Your task to perform on an android device: change alarm snooze length Image 0: 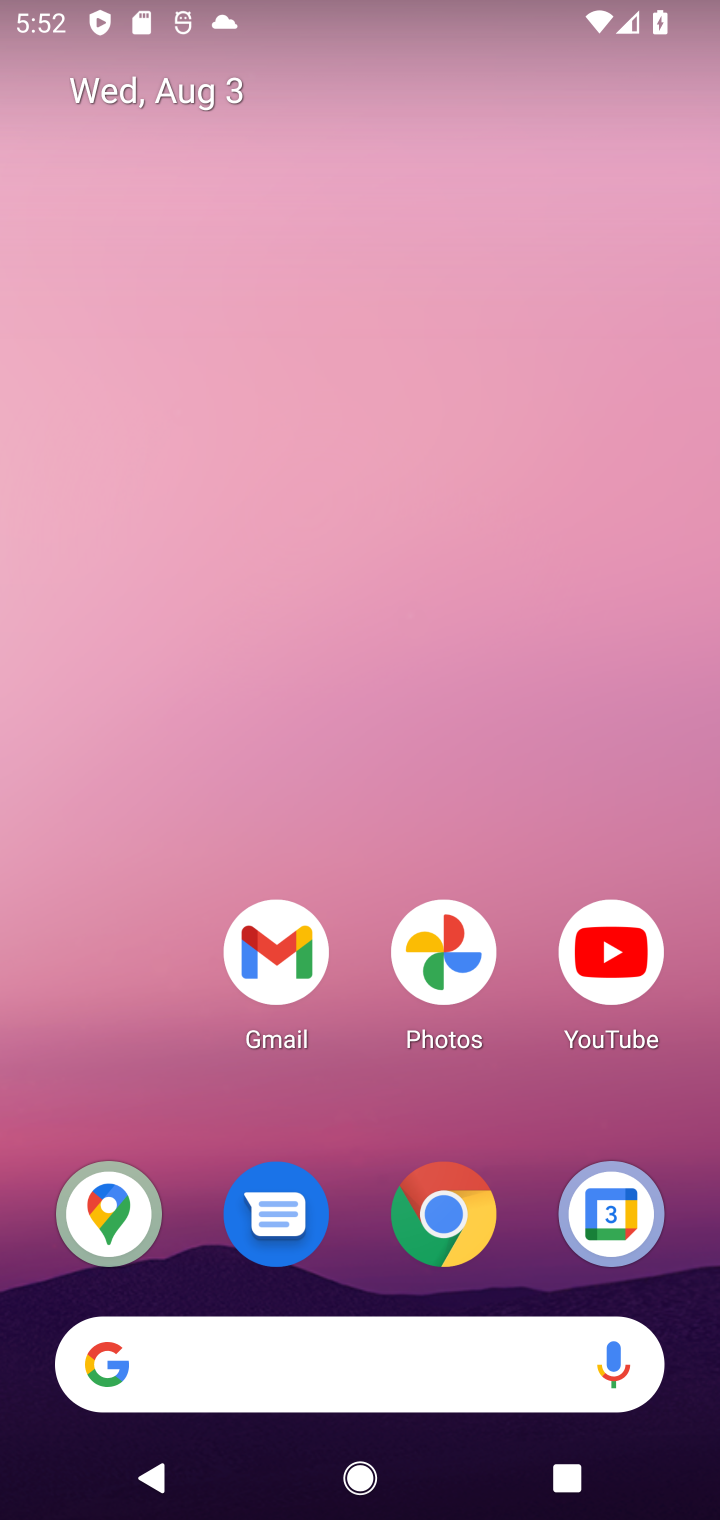
Step 0: drag from (98, 1237) to (41, 192)
Your task to perform on an android device: change alarm snooze length Image 1: 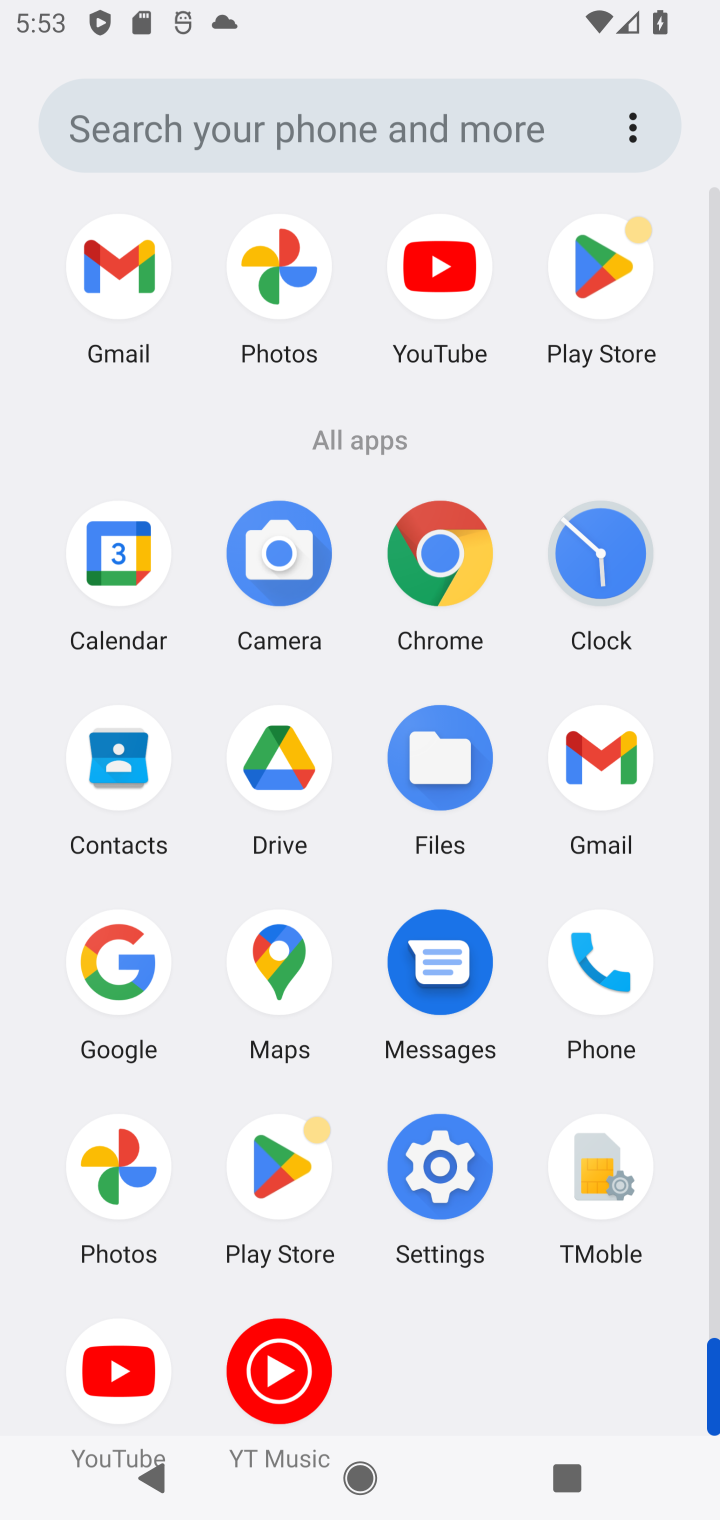
Step 1: click (610, 567)
Your task to perform on an android device: change alarm snooze length Image 2: 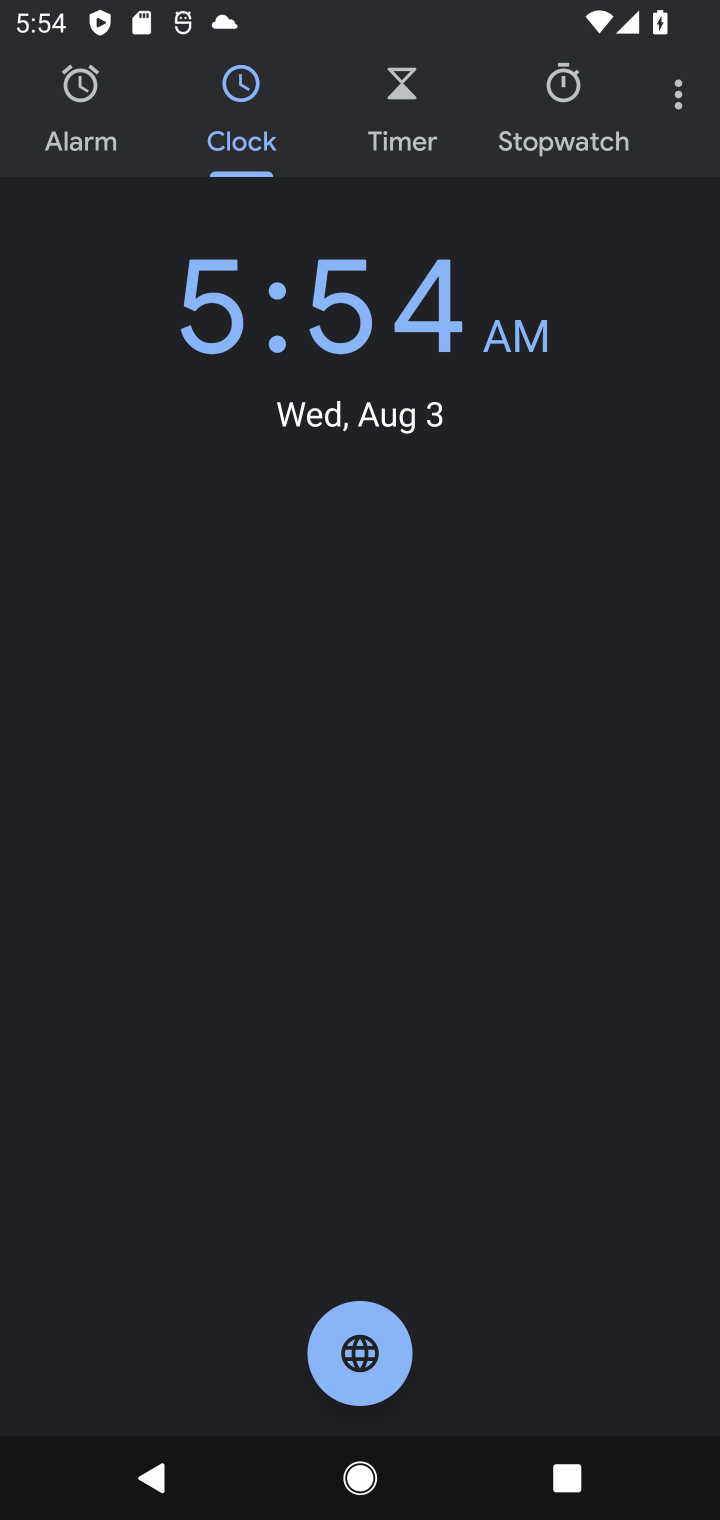
Step 2: click (665, 100)
Your task to perform on an android device: change alarm snooze length Image 3: 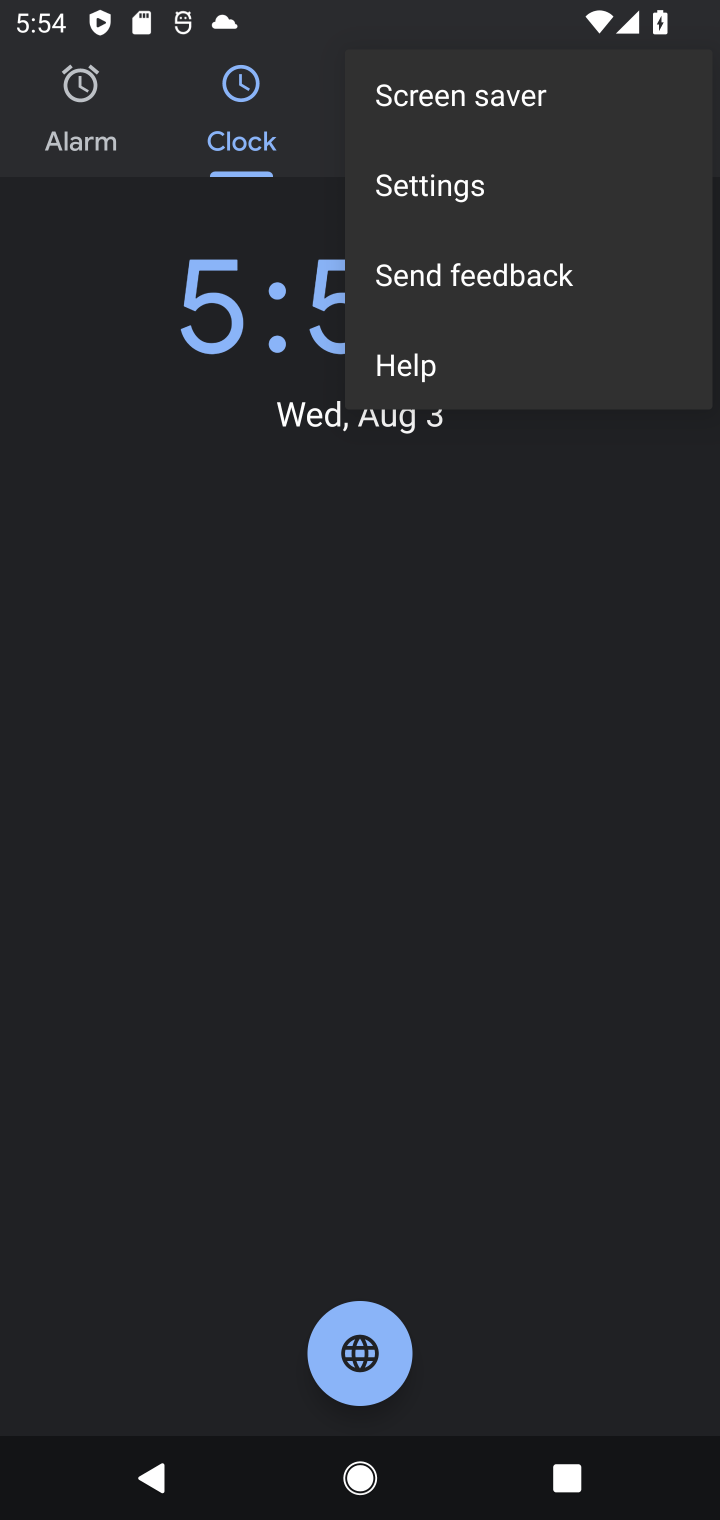
Step 3: click (408, 189)
Your task to perform on an android device: change alarm snooze length Image 4: 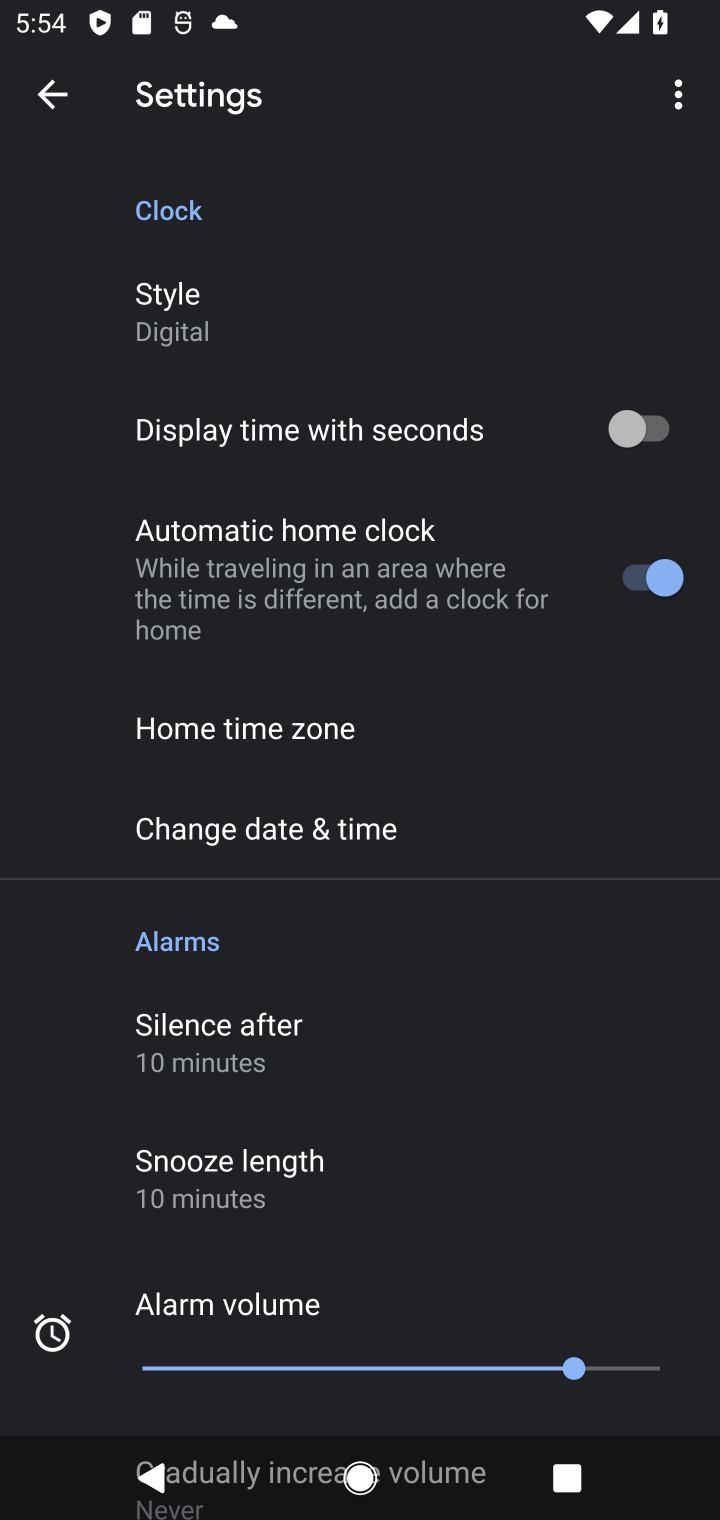
Step 4: click (194, 1148)
Your task to perform on an android device: change alarm snooze length Image 5: 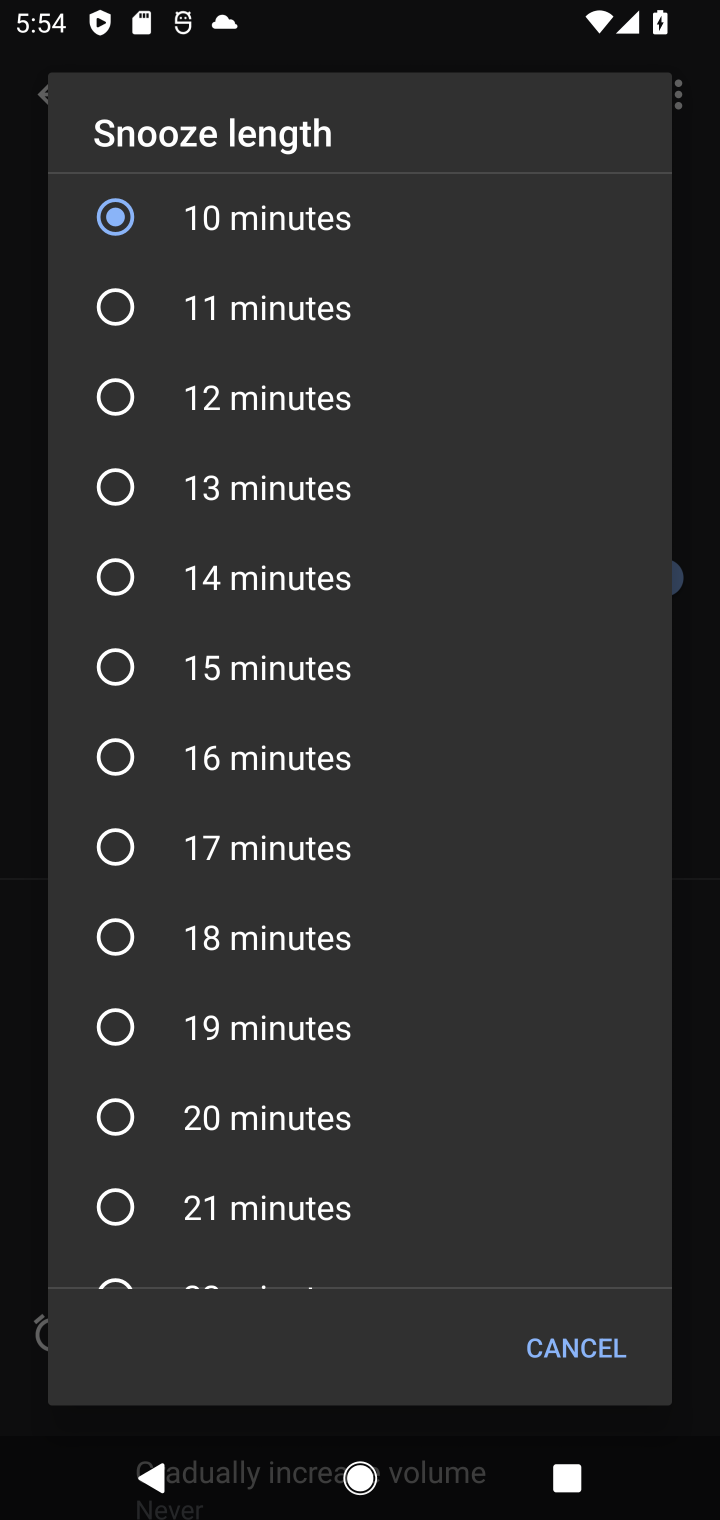
Step 5: click (243, 792)
Your task to perform on an android device: change alarm snooze length Image 6: 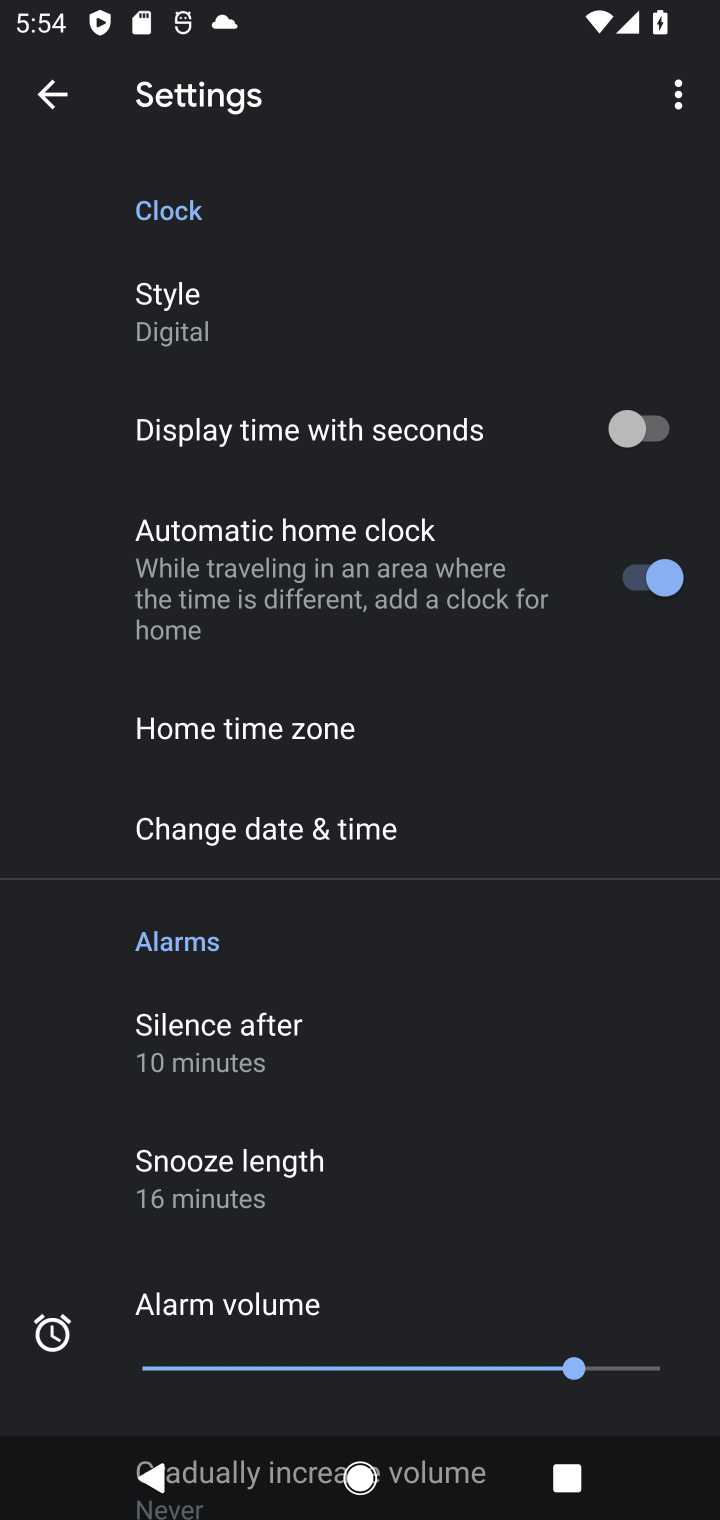
Step 6: task complete